Your task to perform on an android device: Search for acer nitro on costco.com, select the first entry, add it to the cart, then select checkout. Image 0: 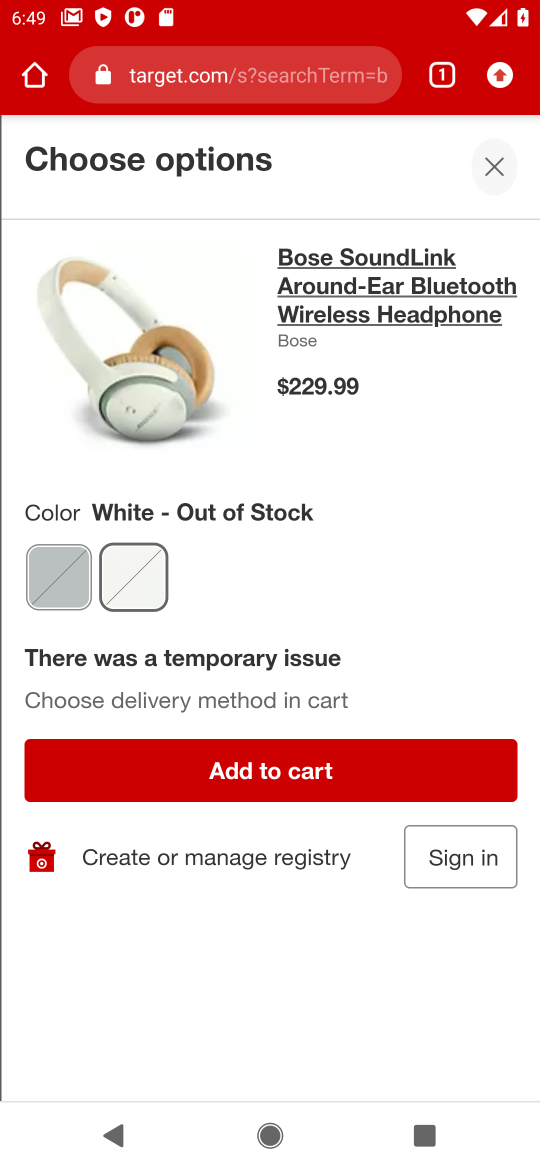
Step 0: press home button
Your task to perform on an android device: Search for acer nitro on costco.com, select the first entry, add it to the cart, then select checkout. Image 1: 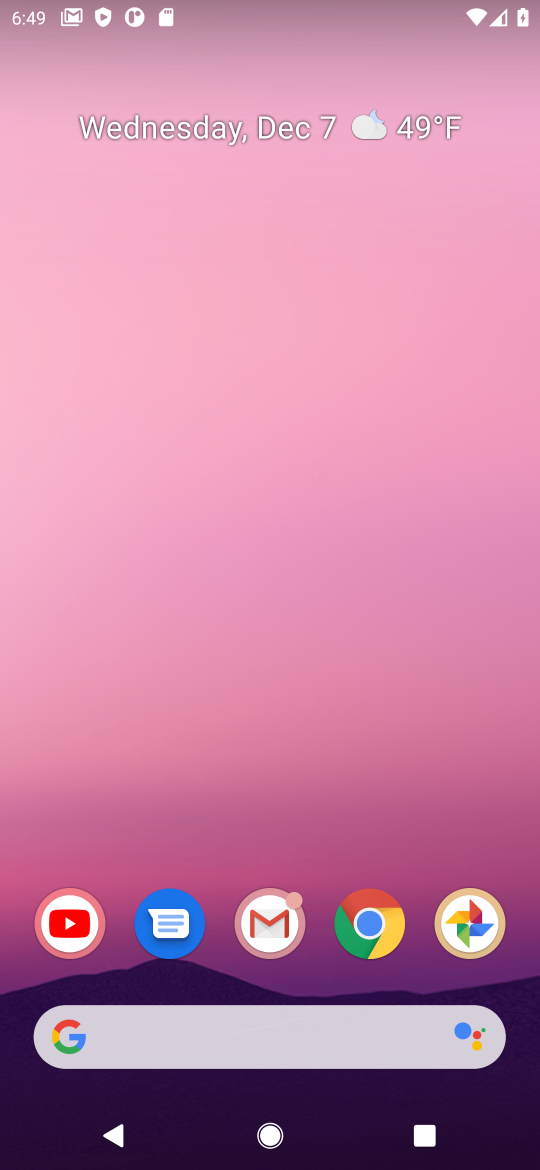
Step 1: drag from (155, 987) to (175, 494)
Your task to perform on an android device: Search for acer nitro on costco.com, select the first entry, add it to the cart, then select checkout. Image 2: 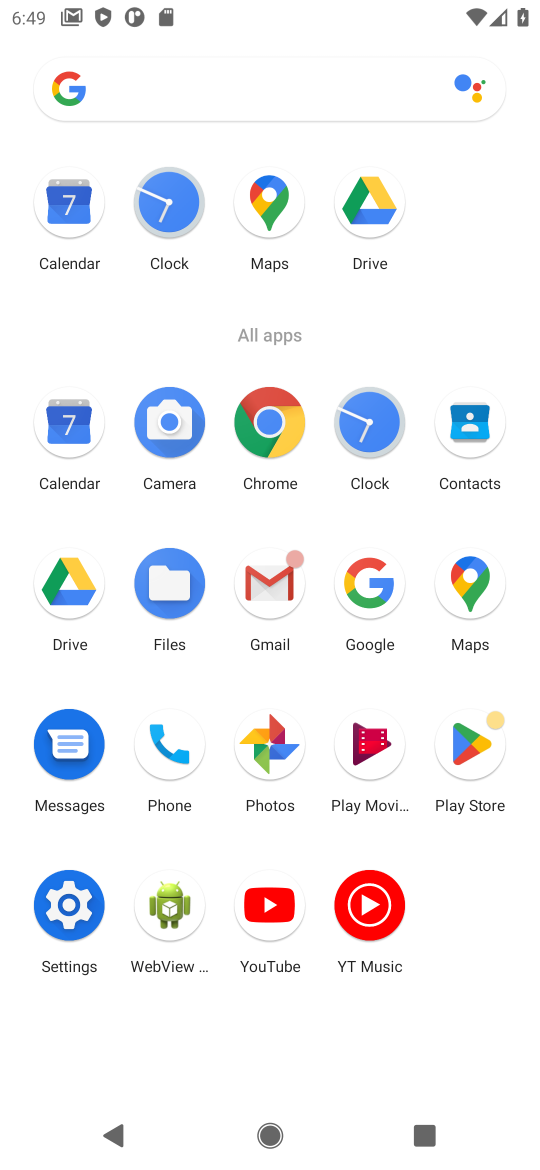
Step 2: click (380, 575)
Your task to perform on an android device: Search for acer nitro on costco.com, select the first entry, add it to the cart, then select checkout. Image 3: 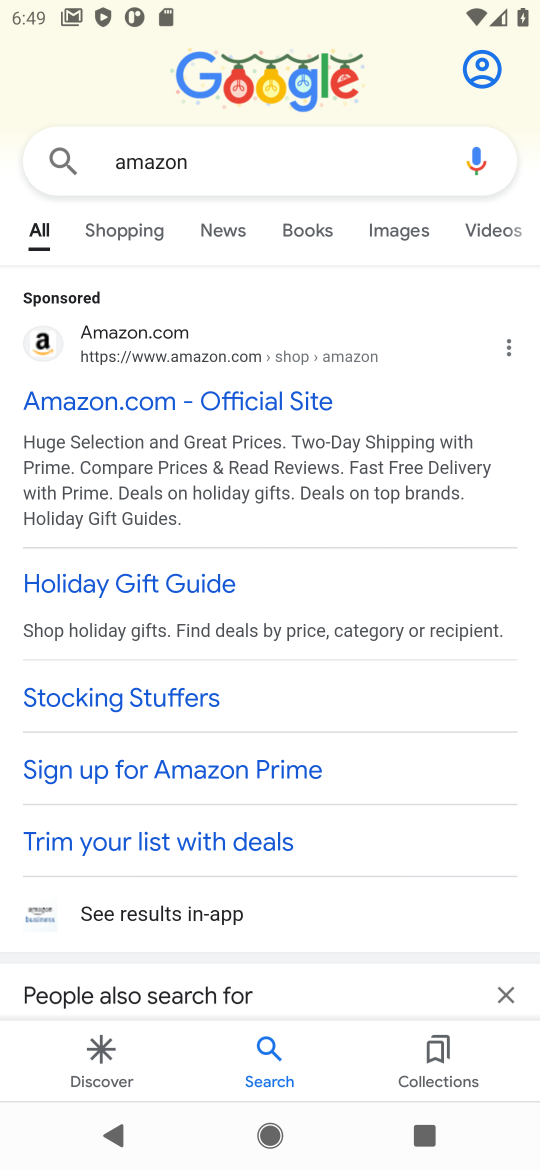
Step 3: click (158, 154)
Your task to perform on an android device: Search for acer nitro on costco.com, select the first entry, add it to the cart, then select checkout. Image 4: 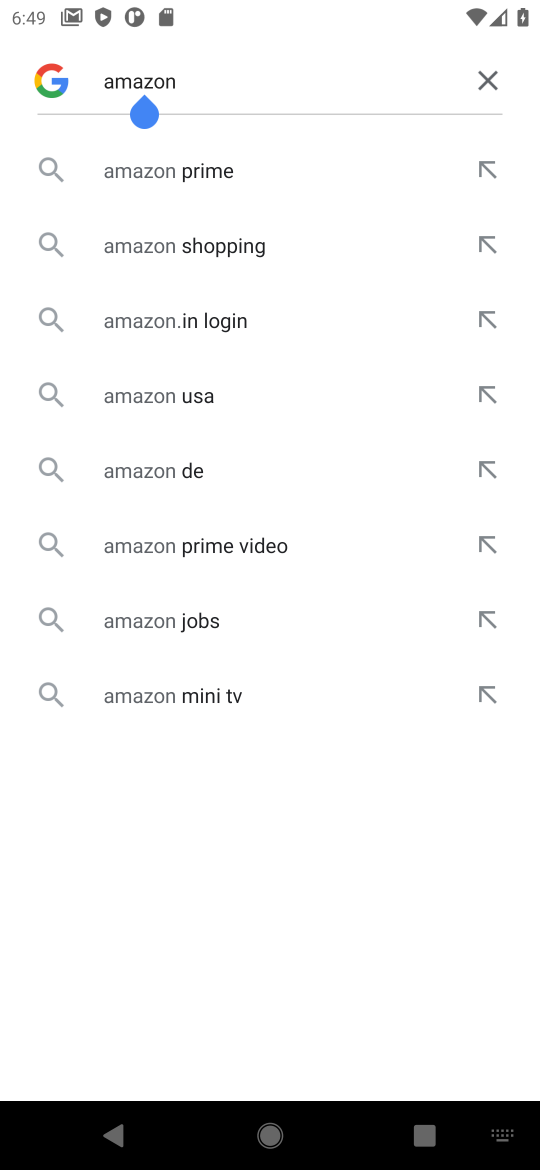
Step 4: click (498, 70)
Your task to perform on an android device: Search for acer nitro on costco.com, select the first entry, add it to the cart, then select checkout. Image 5: 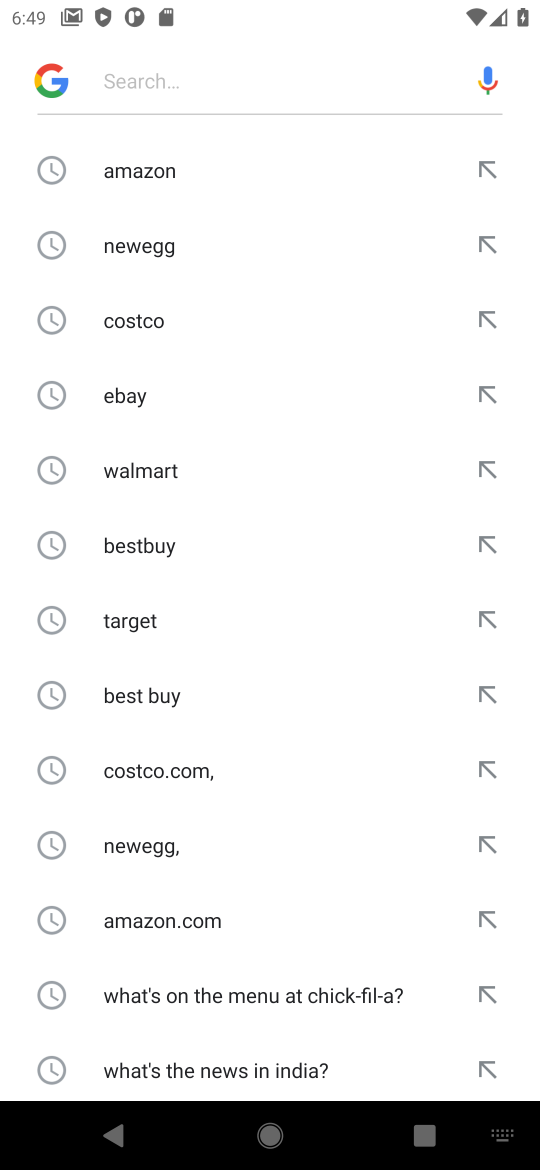
Step 5: click (492, 311)
Your task to perform on an android device: Search for acer nitro on costco.com, select the first entry, add it to the cart, then select checkout. Image 6: 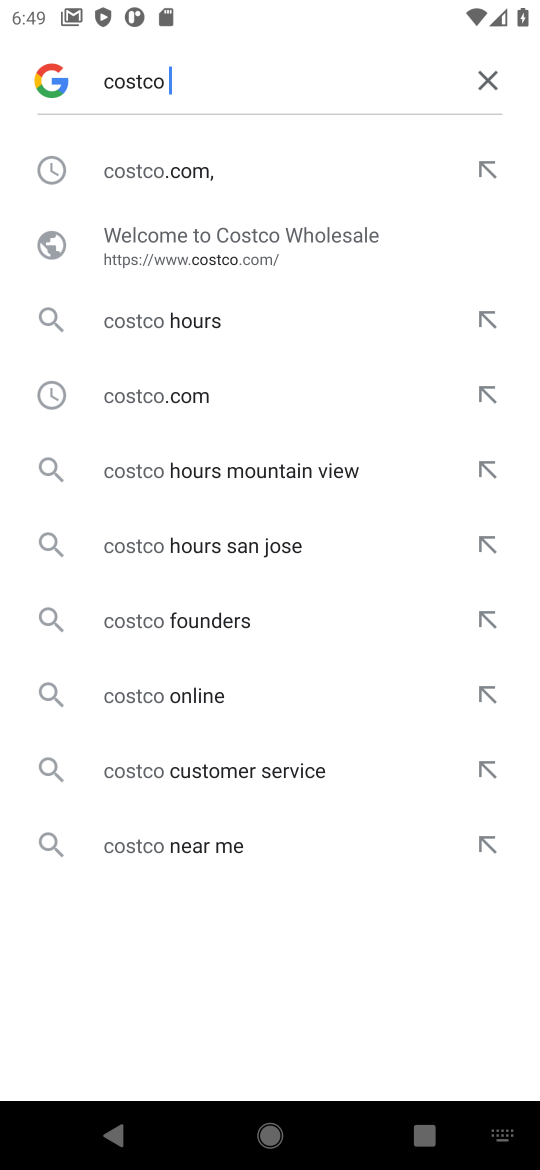
Step 6: click (201, 234)
Your task to perform on an android device: Search for acer nitro on costco.com, select the first entry, add it to the cart, then select checkout. Image 7: 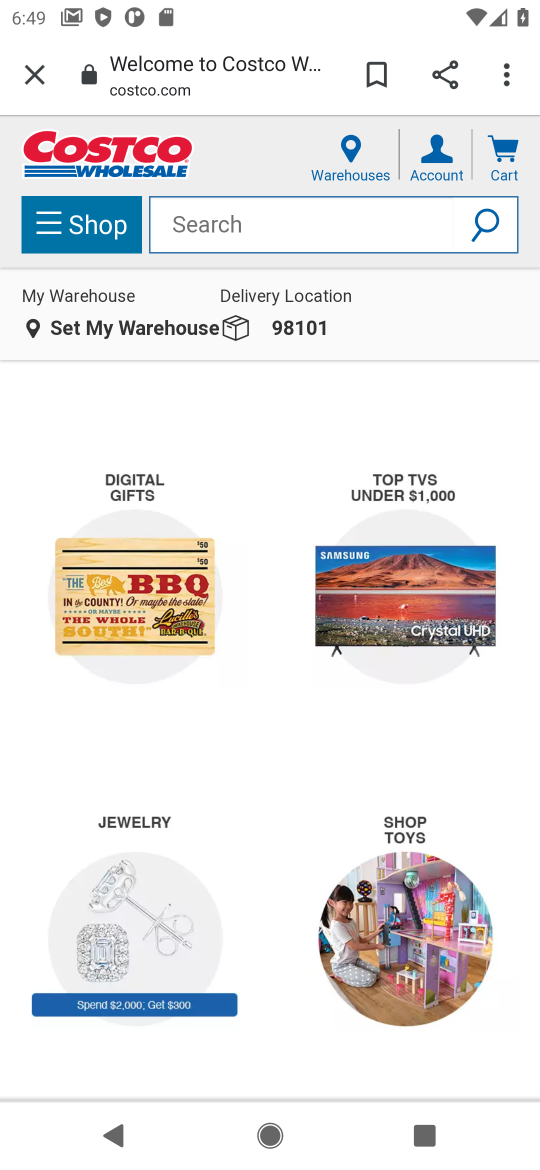
Step 7: click (234, 237)
Your task to perform on an android device: Search for acer nitro on costco.com, select the first entry, add it to the cart, then select checkout. Image 8: 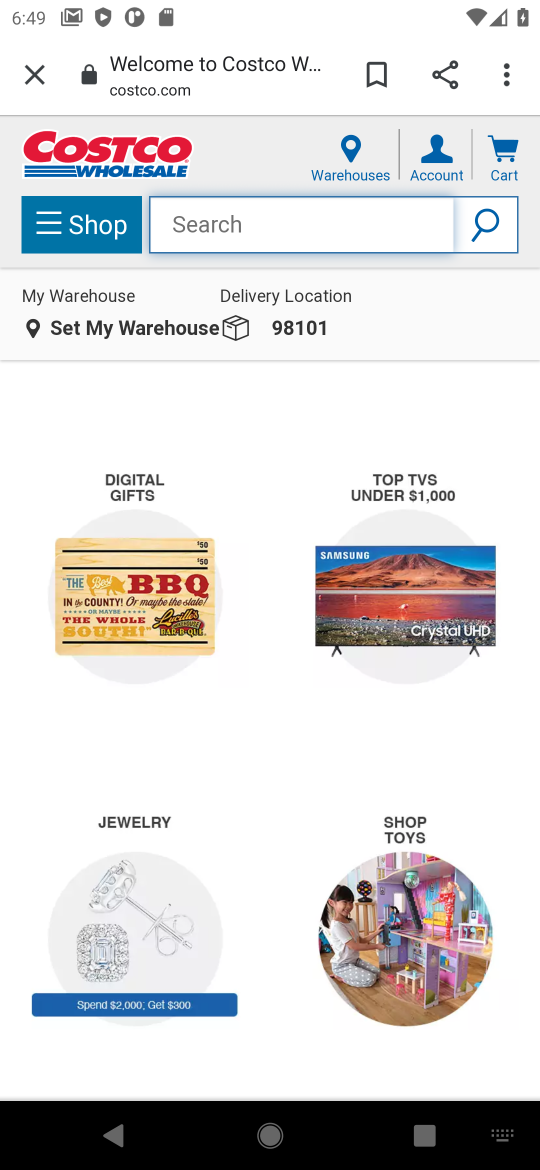
Step 8: type "acer nitro"
Your task to perform on an android device: Search for acer nitro on costco.com, select the first entry, add it to the cart, then select checkout. Image 9: 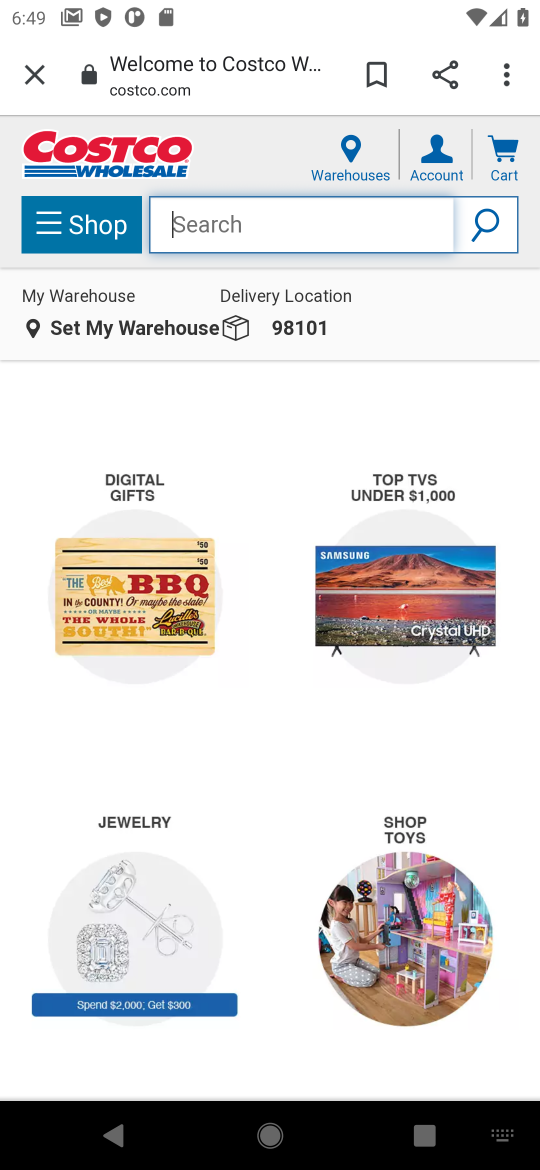
Step 9: click (478, 231)
Your task to perform on an android device: Search for acer nitro on costco.com, select the first entry, add it to the cart, then select checkout. Image 10: 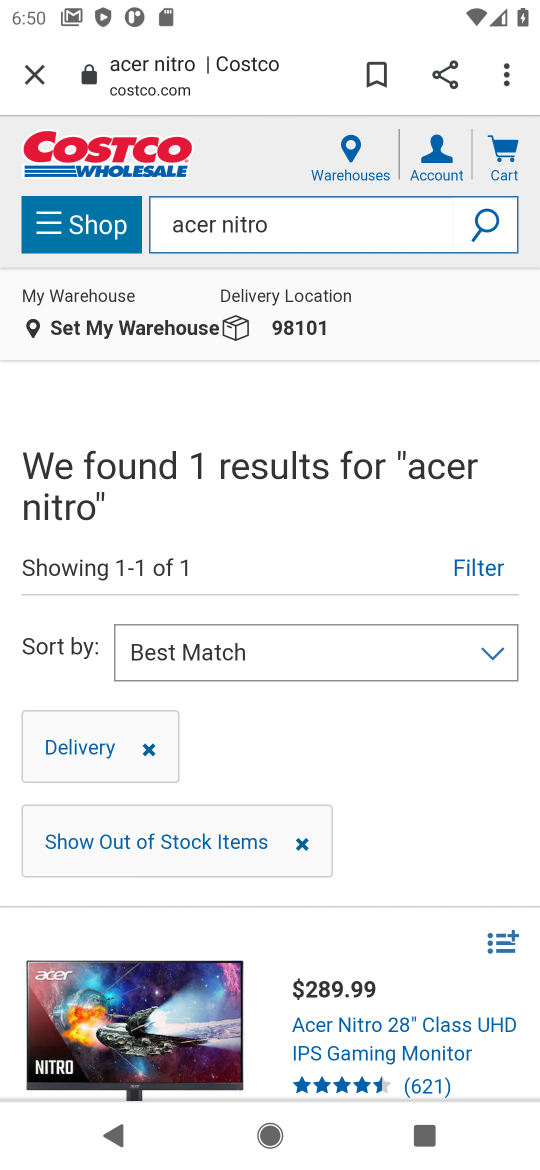
Step 10: drag from (446, 1033) to (446, 591)
Your task to perform on an android device: Search for acer nitro on costco.com, select the first entry, add it to the cart, then select checkout. Image 11: 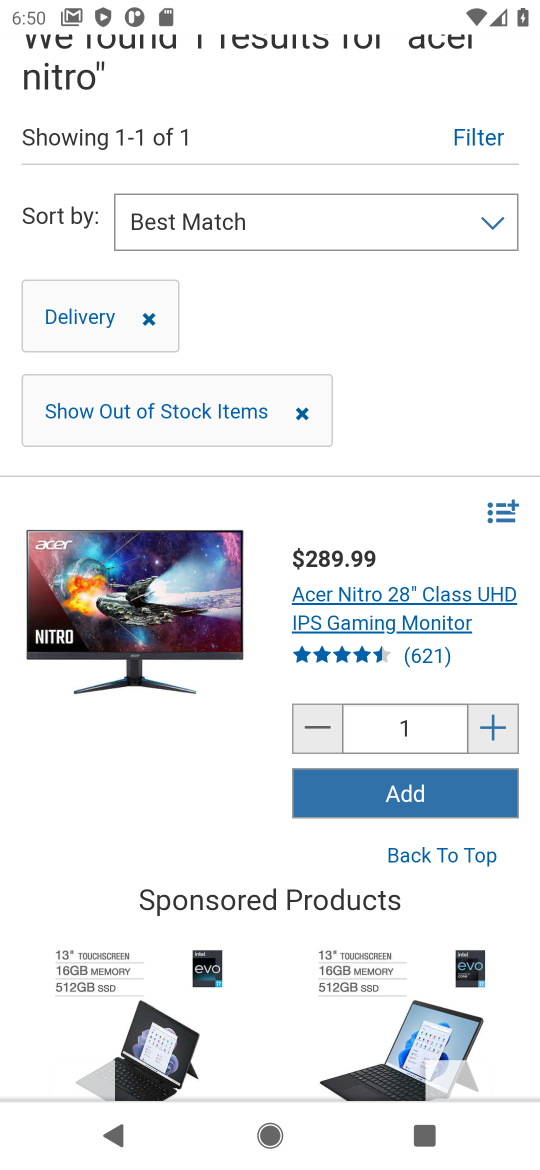
Step 11: click (430, 804)
Your task to perform on an android device: Search for acer nitro on costco.com, select the first entry, add it to the cart, then select checkout. Image 12: 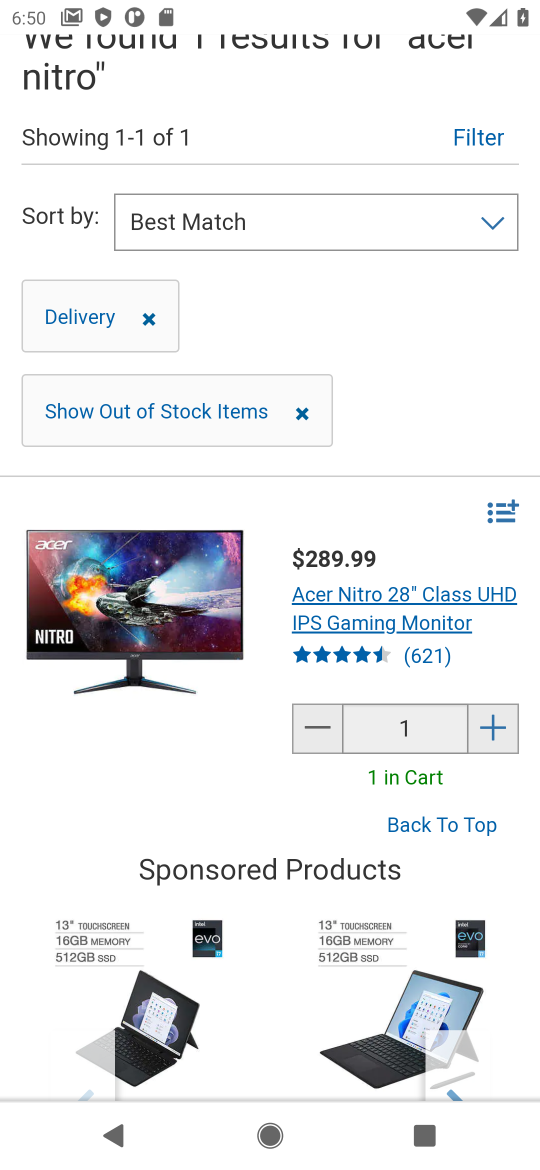
Step 12: drag from (418, 325) to (439, 959)
Your task to perform on an android device: Search for acer nitro on costco.com, select the first entry, add it to the cart, then select checkout. Image 13: 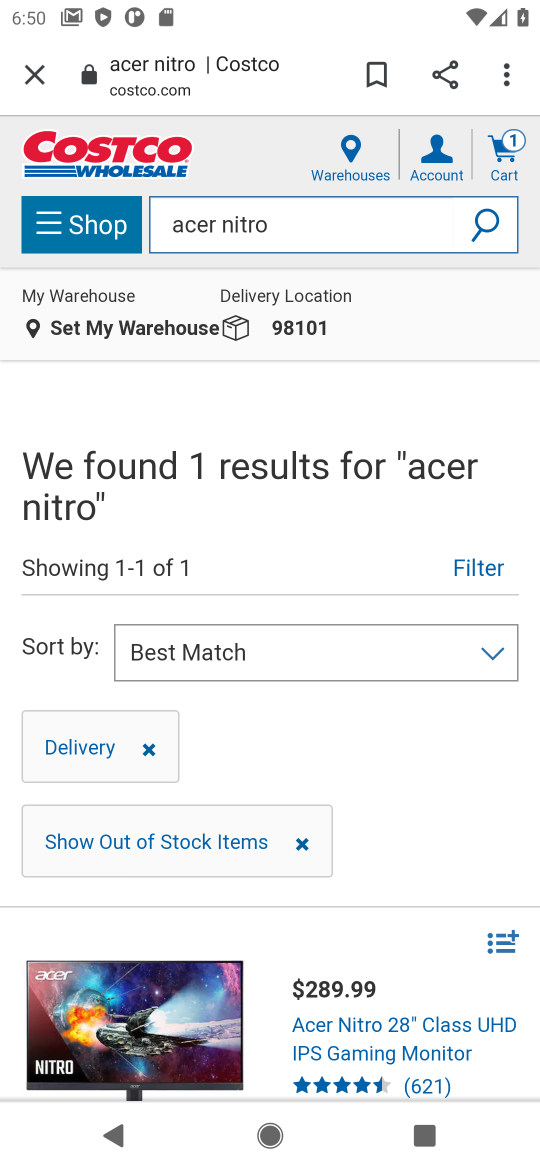
Step 13: click (511, 157)
Your task to perform on an android device: Search for acer nitro on costco.com, select the first entry, add it to the cart, then select checkout. Image 14: 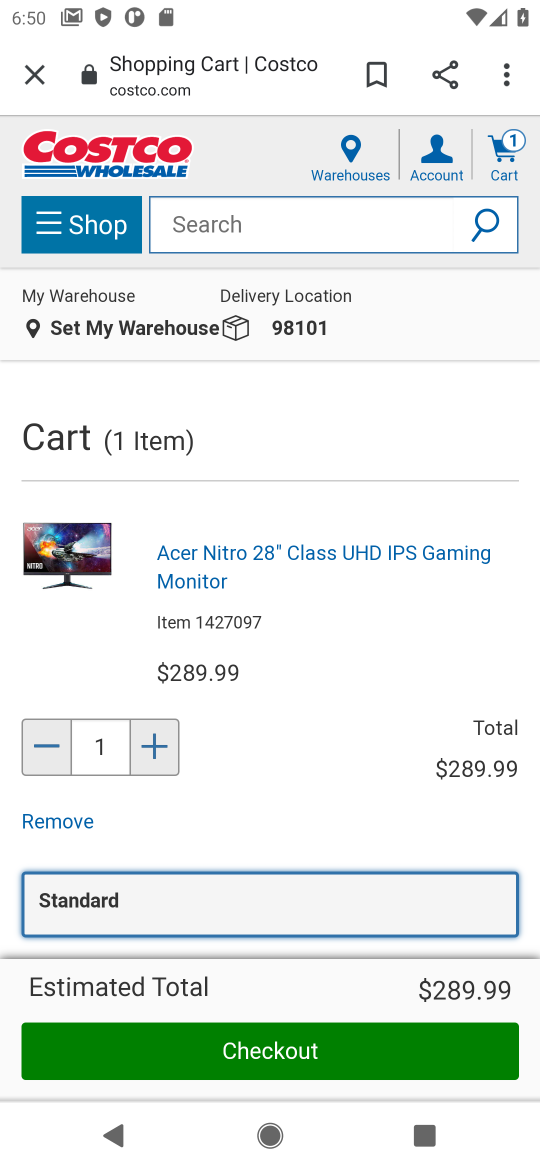
Step 14: click (276, 1059)
Your task to perform on an android device: Search for acer nitro on costco.com, select the first entry, add it to the cart, then select checkout. Image 15: 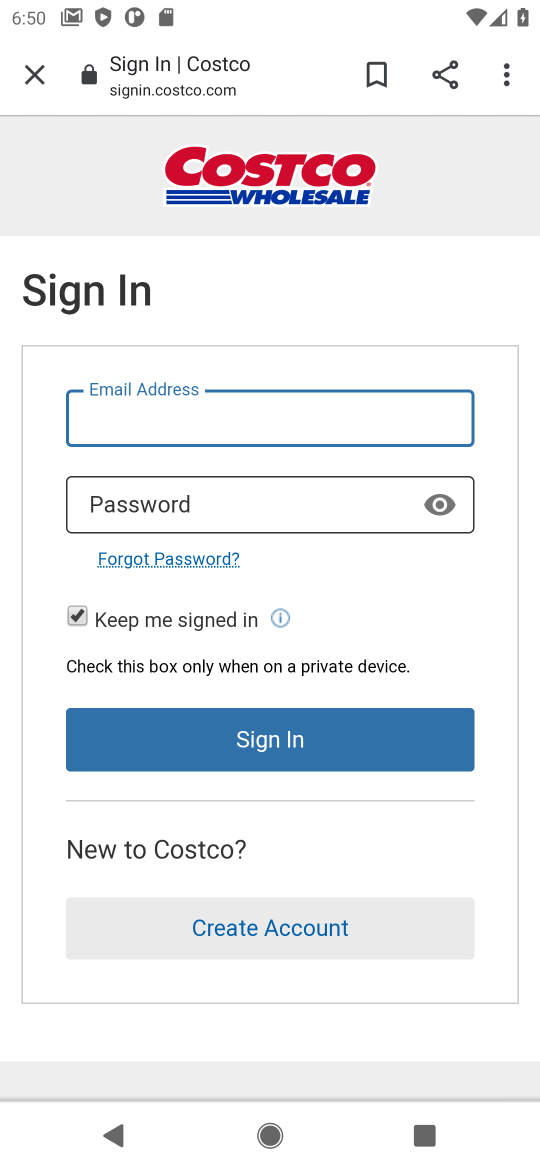
Step 15: task complete